Your task to perform on an android device: When is my next appointment? Image 0: 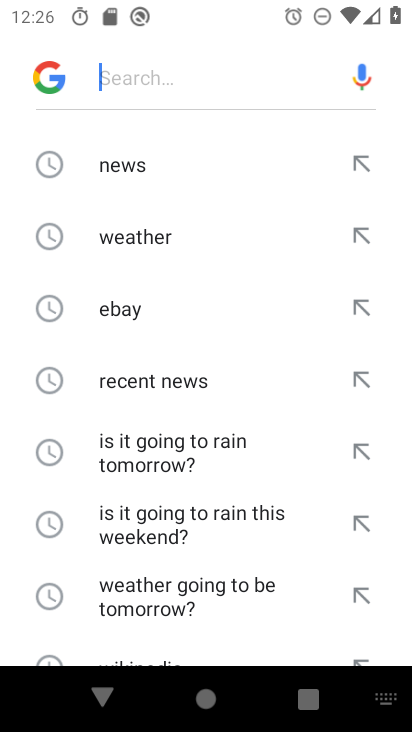
Step 0: press home button
Your task to perform on an android device: When is my next appointment? Image 1: 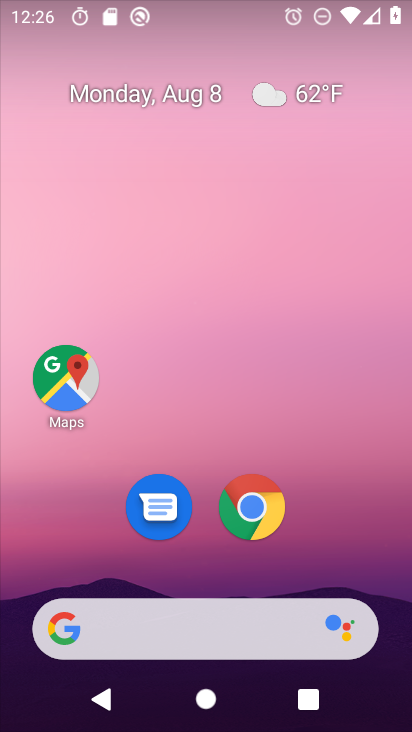
Step 1: drag from (365, 551) to (341, 43)
Your task to perform on an android device: When is my next appointment? Image 2: 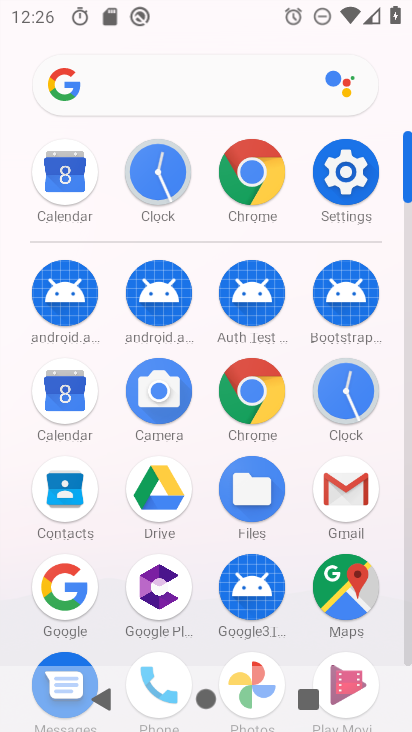
Step 2: click (61, 400)
Your task to perform on an android device: When is my next appointment? Image 3: 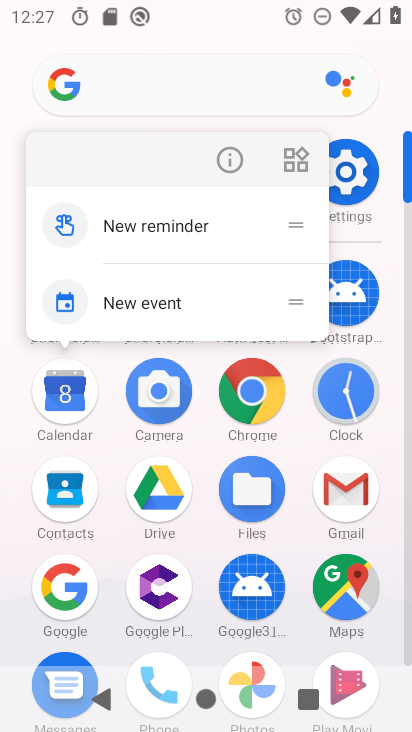
Step 3: click (71, 391)
Your task to perform on an android device: When is my next appointment? Image 4: 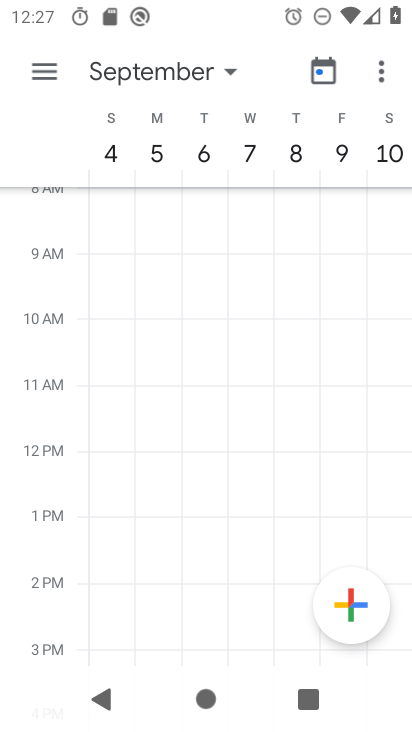
Step 4: click (152, 74)
Your task to perform on an android device: When is my next appointment? Image 5: 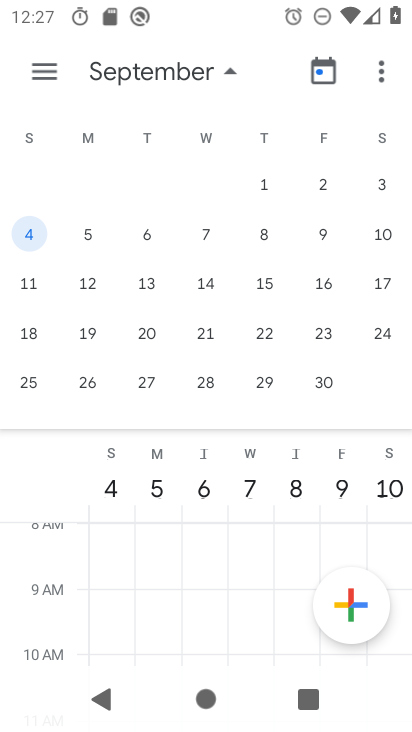
Step 5: drag from (29, 260) to (403, 288)
Your task to perform on an android device: When is my next appointment? Image 6: 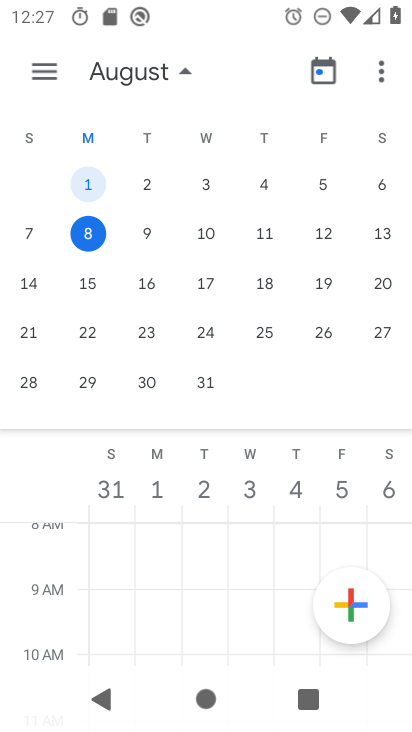
Step 6: click (96, 231)
Your task to perform on an android device: When is my next appointment? Image 7: 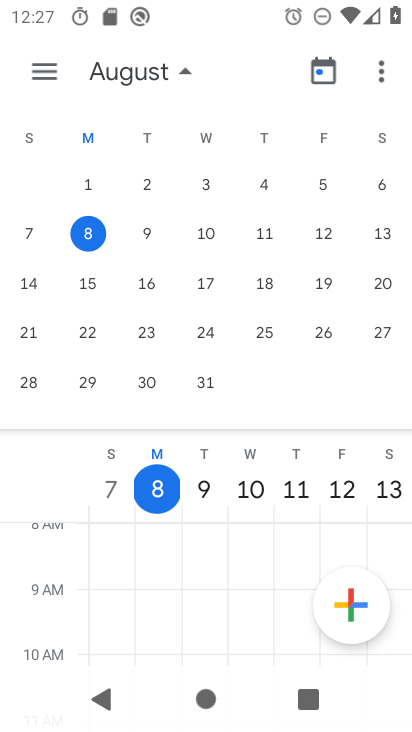
Step 7: task complete